Your task to perform on an android device: turn on bluetooth scan Image 0: 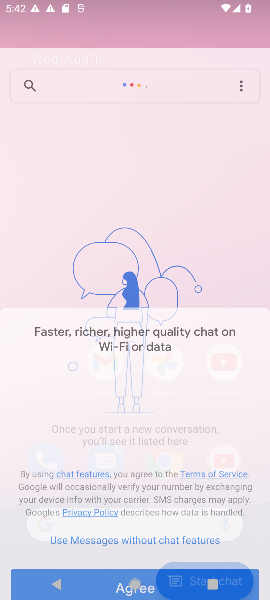
Step 0: press home button
Your task to perform on an android device: turn on bluetooth scan Image 1: 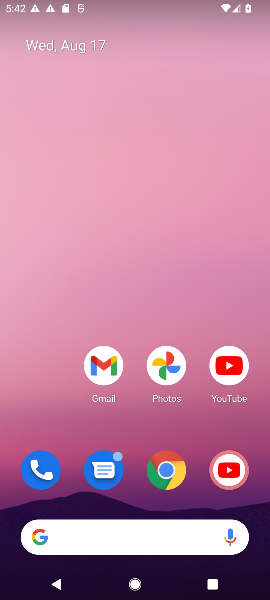
Step 1: drag from (124, 503) to (139, 126)
Your task to perform on an android device: turn on bluetooth scan Image 2: 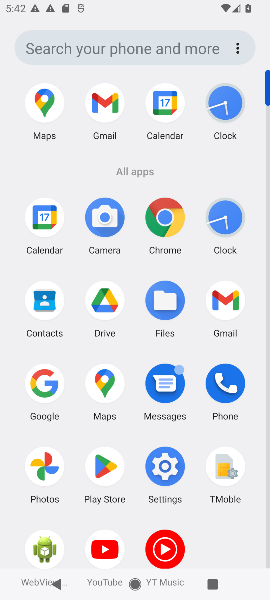
Step 2: click (162, 468)
Your task to perform on an android device: turn on bluetooth scan Image 3: 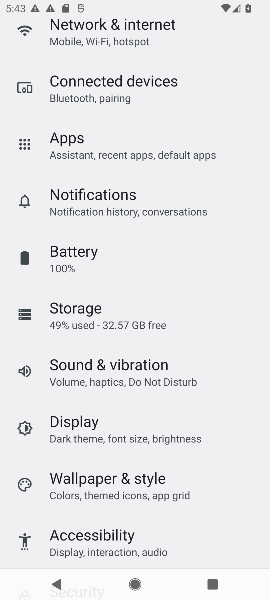
Step 3: drag from (102, 200) to (145, 2)
Your task to perform on an android device: turn on bluetooth scan Image 4: 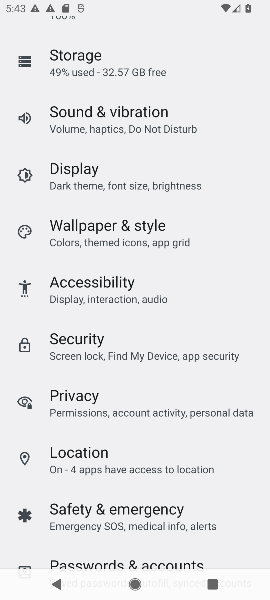
Step 4: click (104, 463)
Your task to perform on an android device: turn on bluetooth scan Image 5: 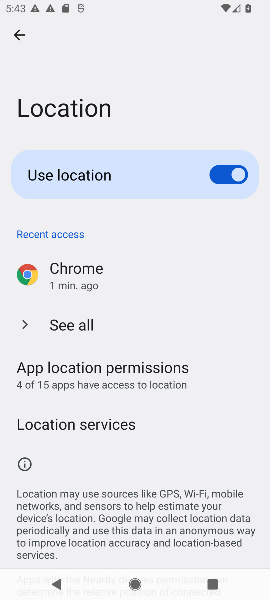
Step 5: click (113, 412)
Your task to perform on an android device: turn on bluetooth scan Image 6: 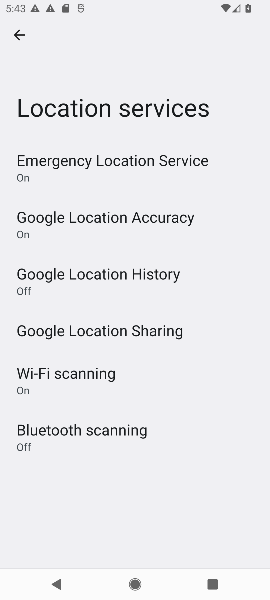
Step 6: click (87, 434)
Your task to perform on an android device: turn on bluetooth scan Image 7: 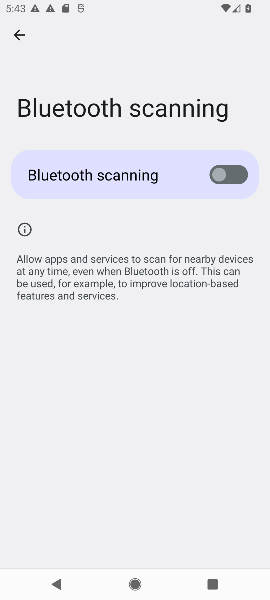
Step 7: click (234, 179)
Your task to perform on an android device: turn on bluetooth scan Image 8: 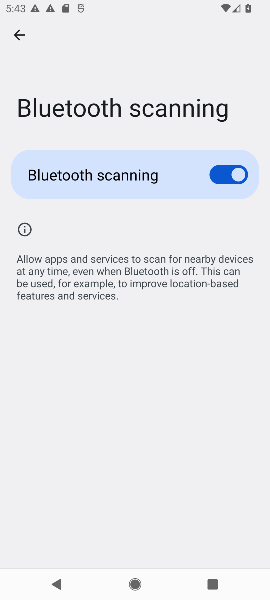
Step 8: task complete